Your task to perform on an android device: What is the recent news? Image 0: 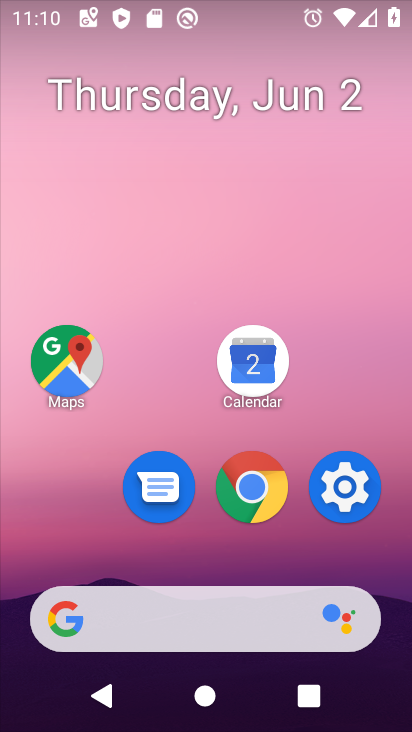
Step 0: press home button
Your task to perform on an android device: What is the recent news? Image 1: 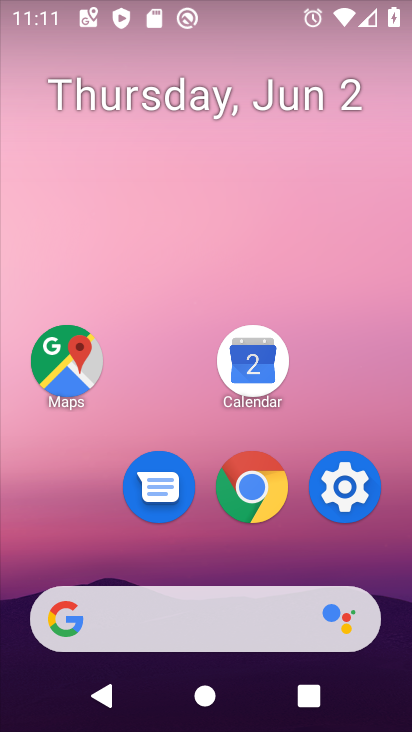
Step 1: click (197, 622)
Your task to perform on an android device: What is the recent news? Image 2: 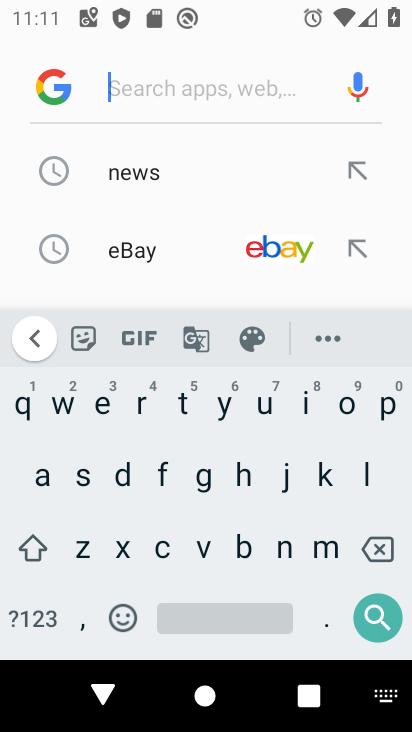
Step 2: click (132, 416)
Your task to perform on an android device: What is the recent news? Image 3: 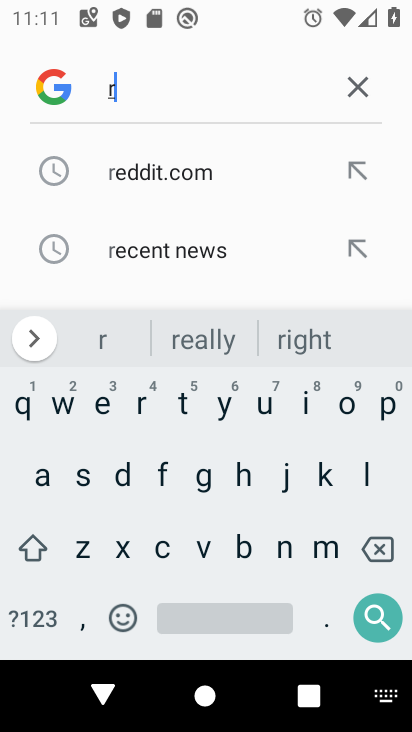
Step 3: click (146, 253)
Your task to perform on an android device: What is the recent news? Image 4: 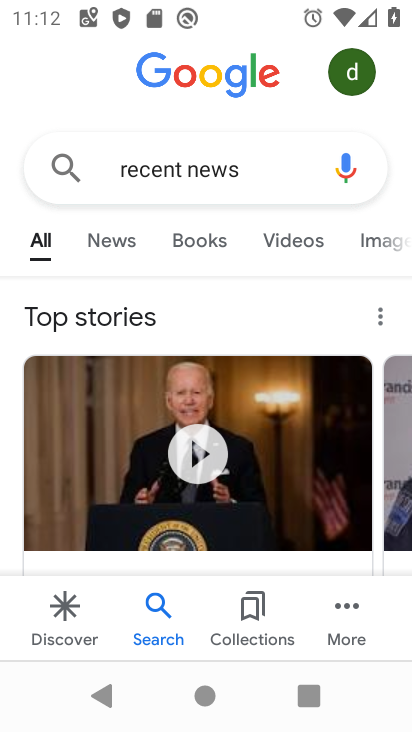
Step 4: task complete